Your task to perform on an android device: delete a single message in the gmail app Image 0: 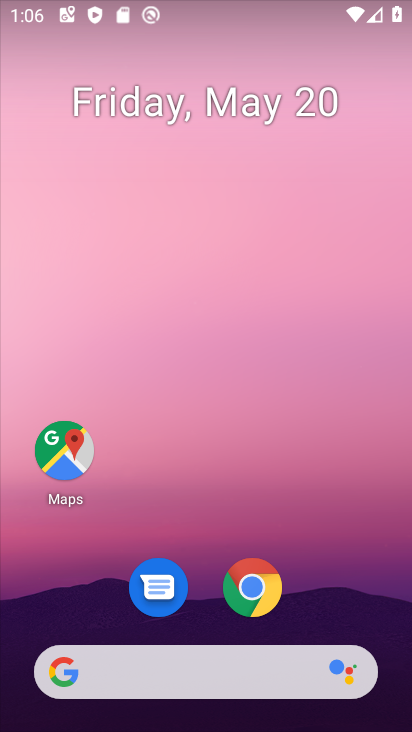
Step 0: drag from (340, 549) to (245, 0)
Your task to perform on an android device: delete a single message in the gmail app Image 1: 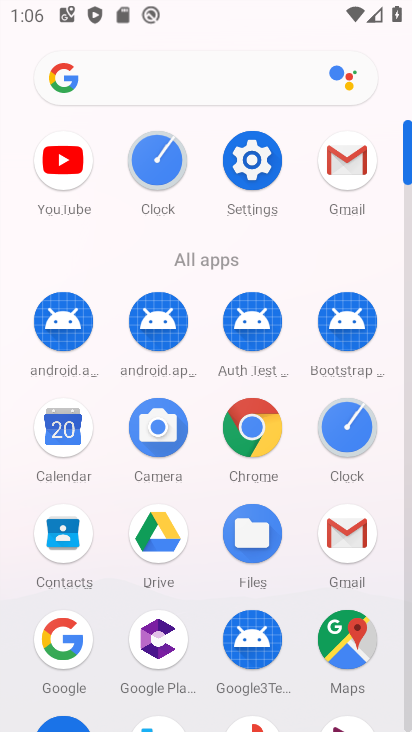
Step 1: click (346, 161)
Your task to perform on an android device: delete a single message in the gmail app Image 2: 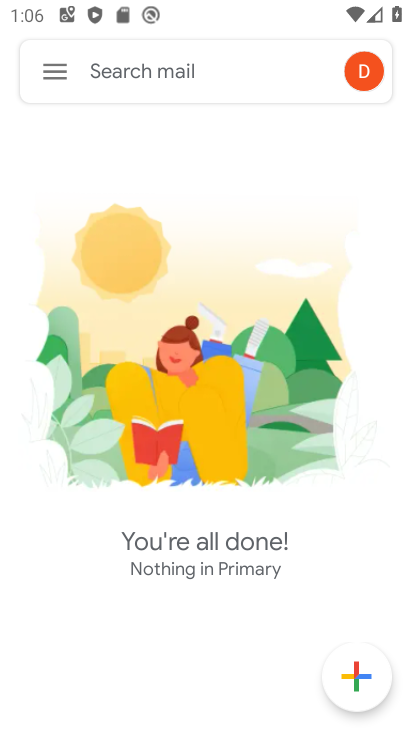
Step 2: click (56, 64)
Your task to perform on an android device: delete a single message in the gmail app Image 3: 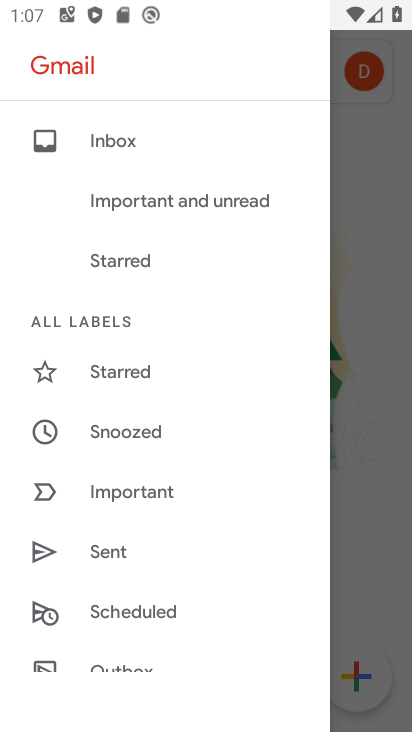
Step 3: drag from (202, 534) to (198, 192)
Your task to perform on an android device: delete a single message in the gmail app Image 4: 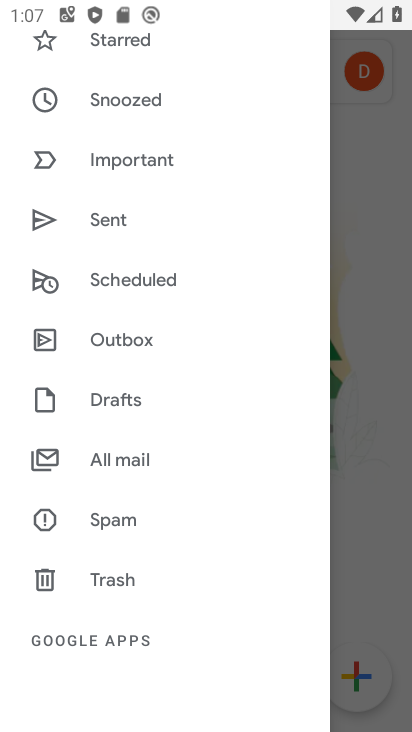
Step 4: click (109, 459)
Your task to perform on an android device: delete a single message in the gmail app Image 5: 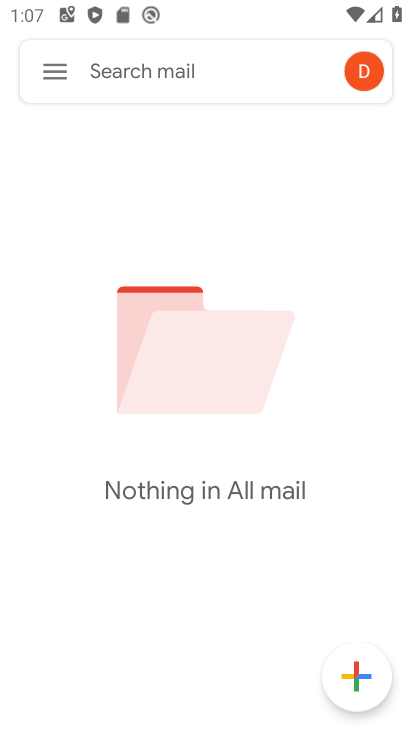
Step 5: click (48, 73)
Your task to perform on an android device: delete a single message in the gmail app Image 6: 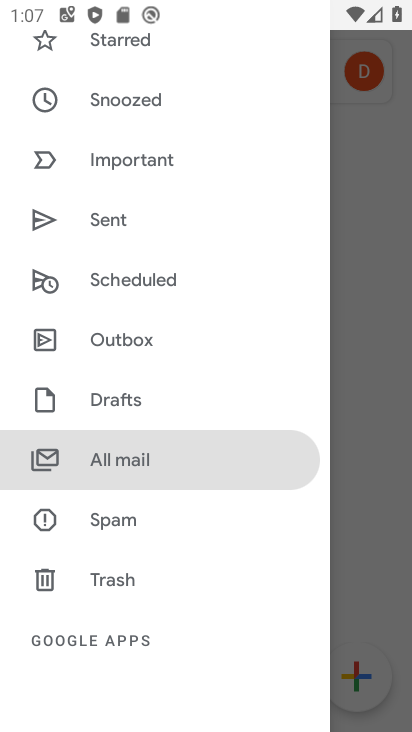
Step 6: task complete